Your task to perform on an android device: Search for razer blackwidow on costco, select the first entry, and add it to the cart. Image 0: 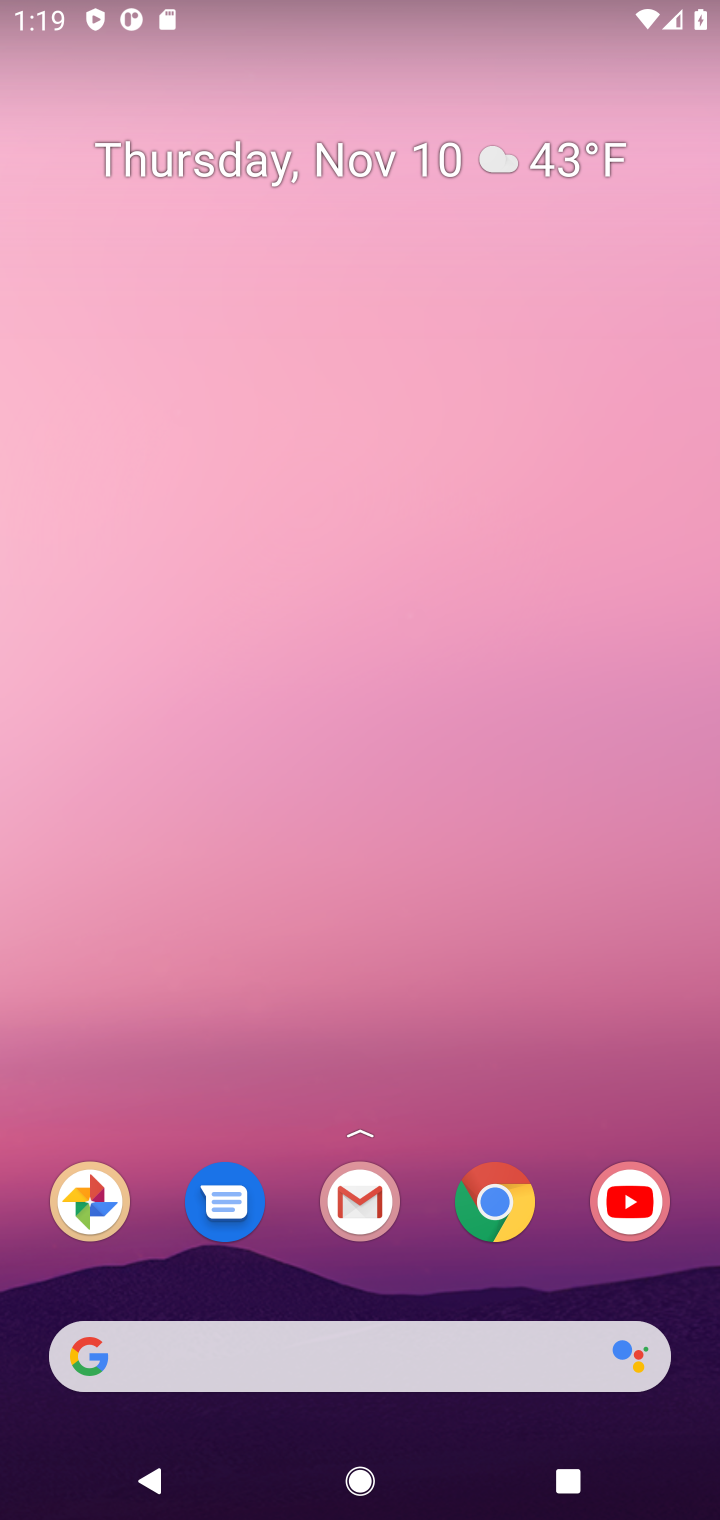
Step 0: click (478, 1205)
Your task to perform on an android device: Search for razer blackwidow on costco, select the first entry, and add it to the cart. Image 1: 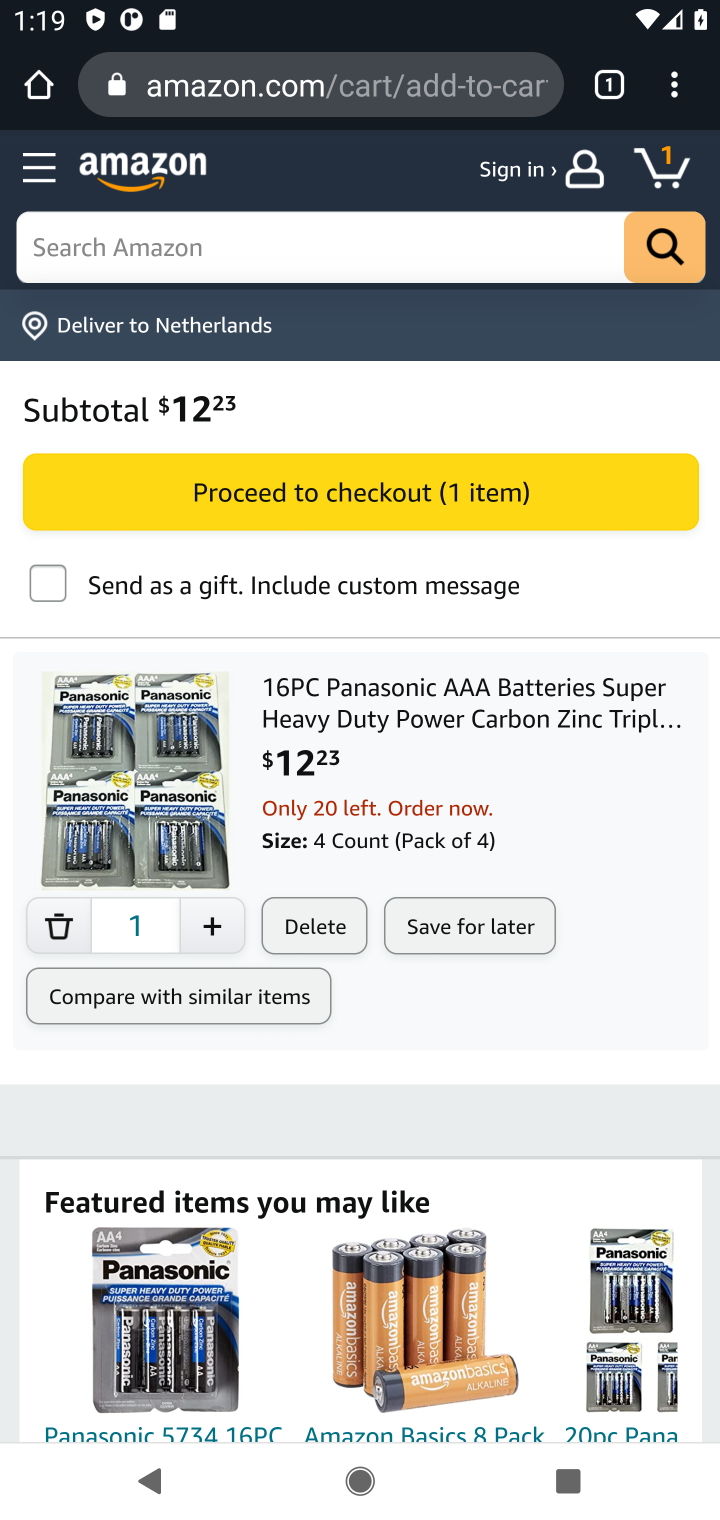
Step 1: click (335, 76)
Your task to perform on an android device: Search for razer blackwidow on costco, select the first entry, and add it to the cart. Image 2: 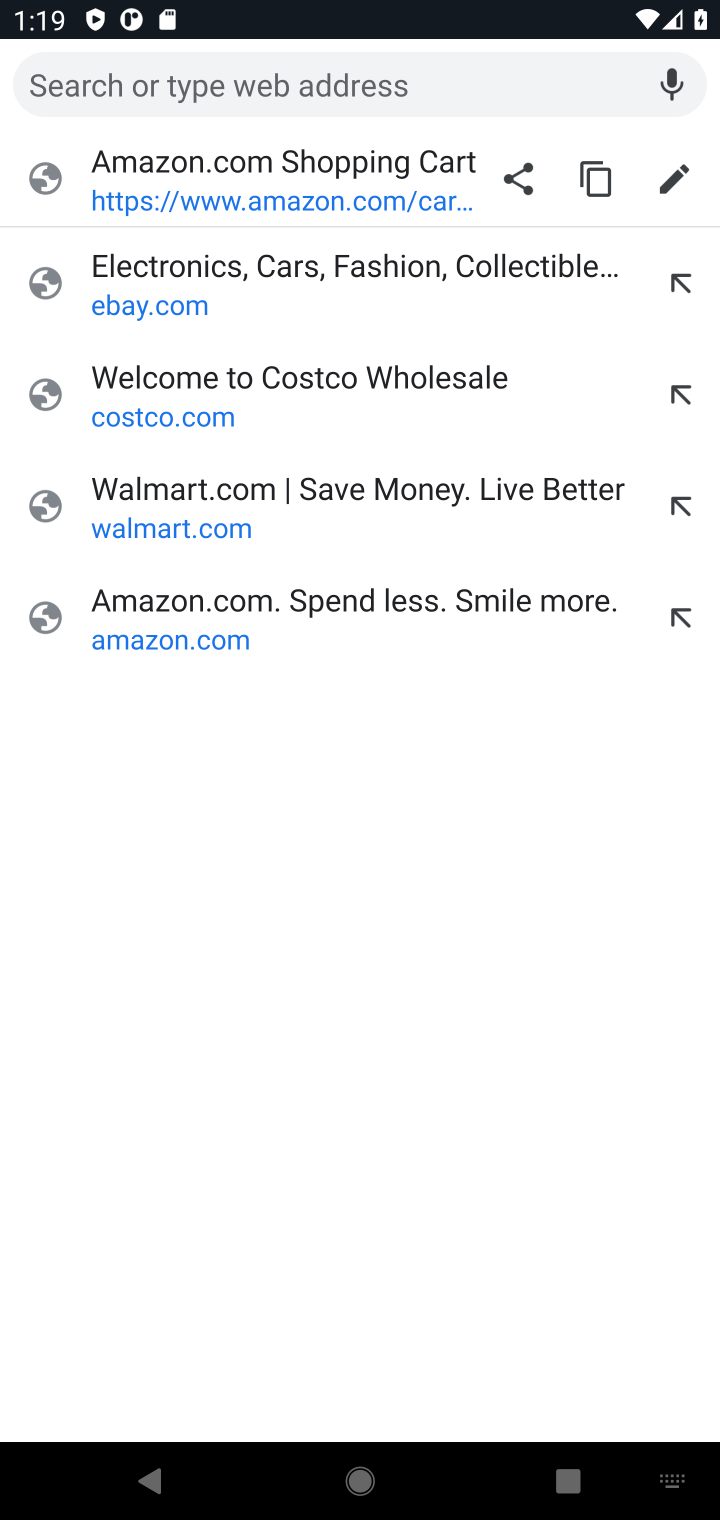
Step 2: type " razer blackwidow on costco"
Your task to perform on an android device: Search for razer blackwidow on costco, select the first entry, and add it to the cart. Image 3: 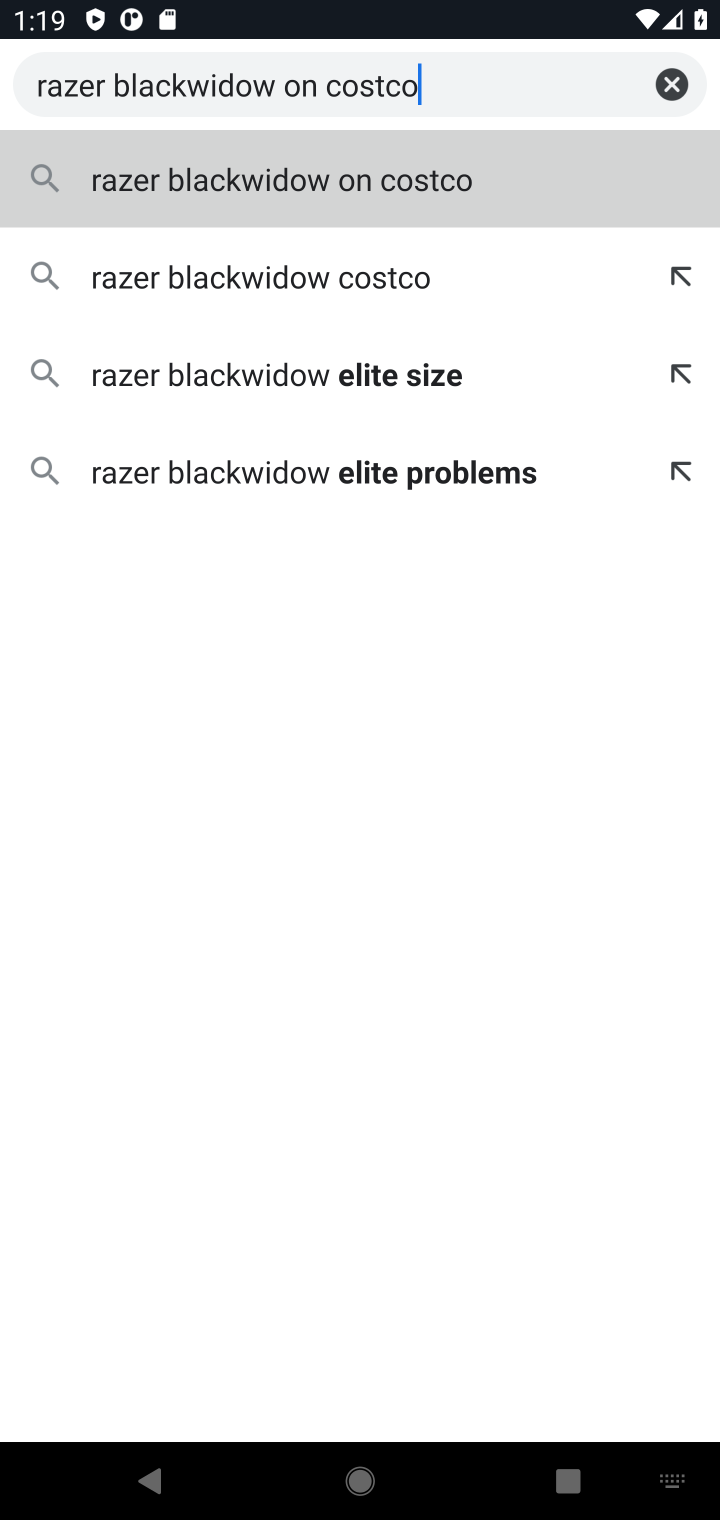
Step 3: click (427, 167)
Your task to perform on an android device: Search for razer blackwidow on costco, select the first entry, and add it to the cart. Image 4: 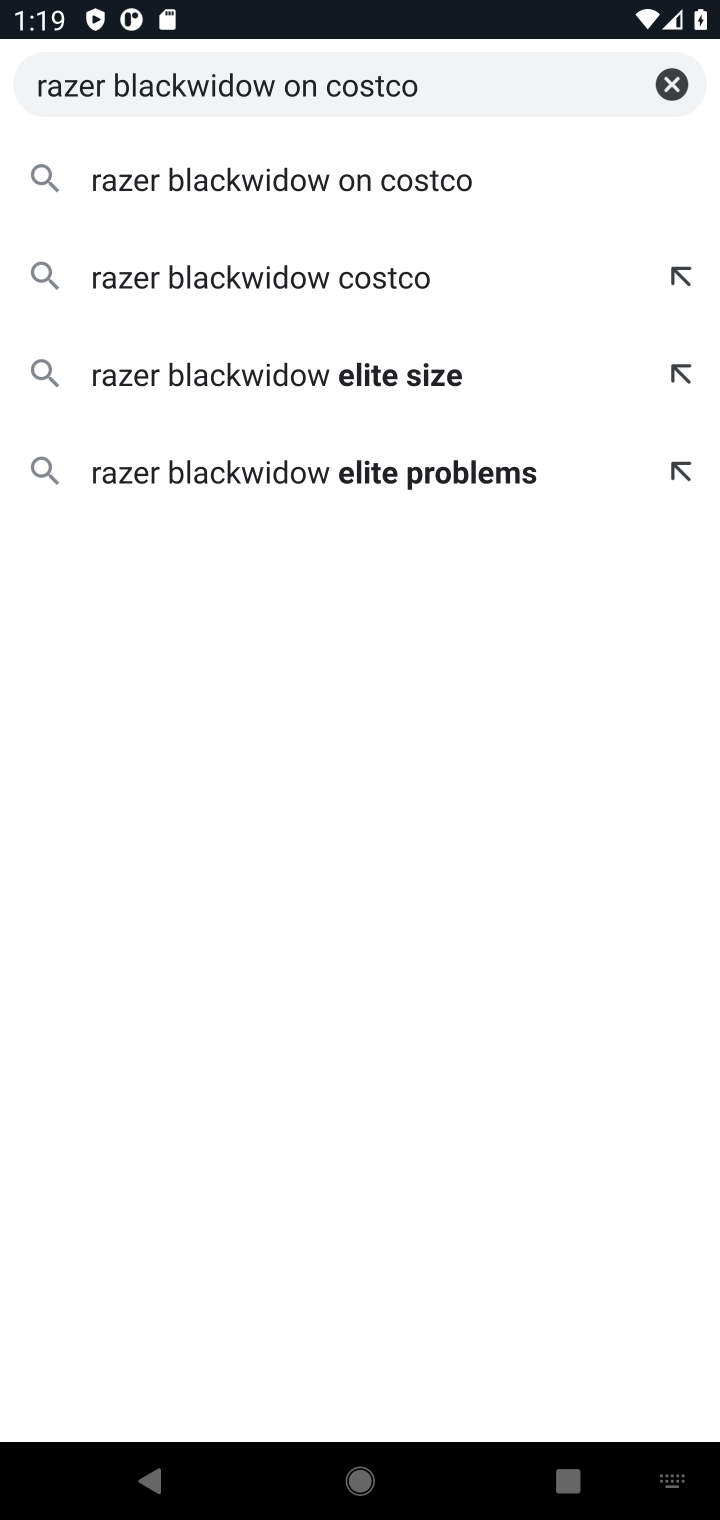
Step 4: click (429, 175)
Your task to perform on an android device: Search for razer blackwidow on costco, select the first entry, and add it to the cart. Image 5: 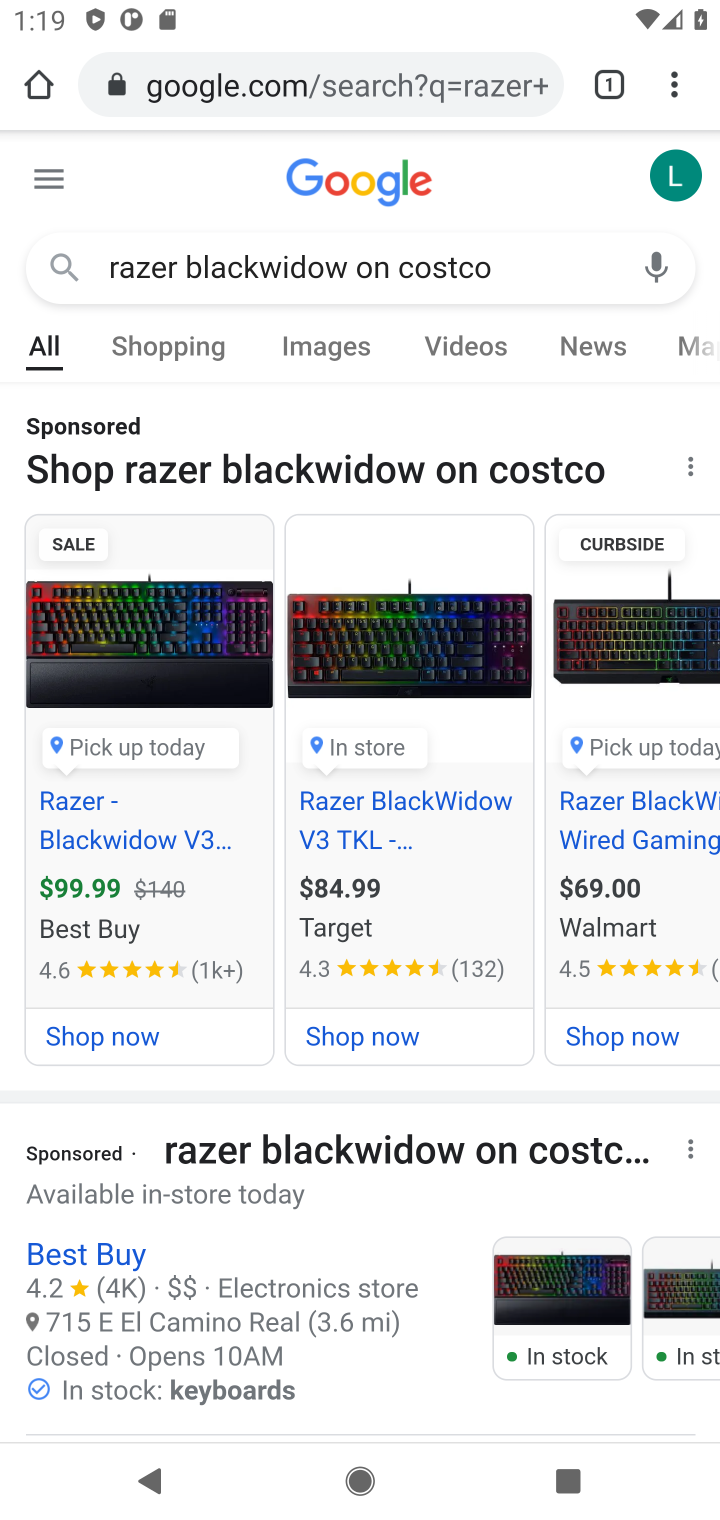
Step 5: drag from (608, 660) to (102, 685)
Your task to perform on an android device: Search for razer blackwidow on costco, select the first entry, and add it to the cart. Image 6: 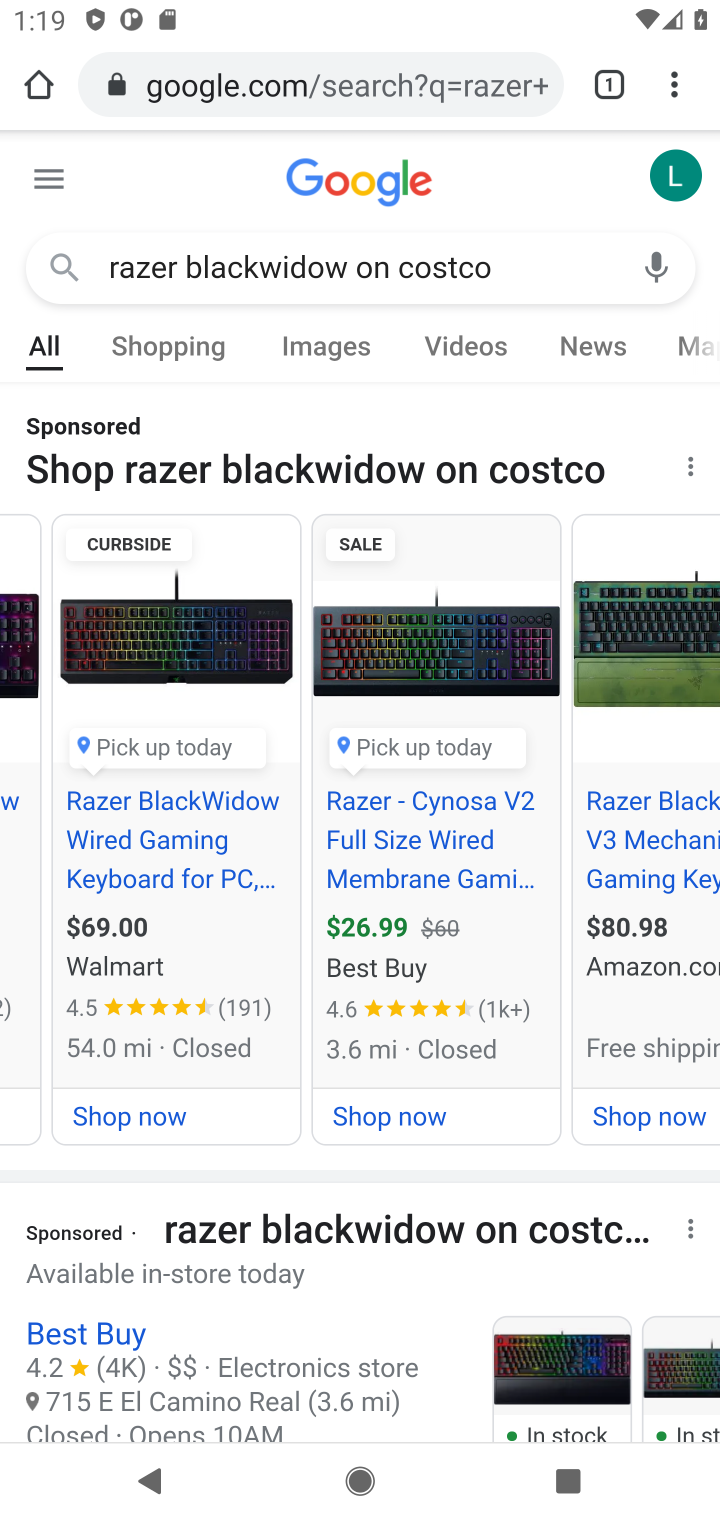
Step 6: drag from (614, 625) to (131, 651)
Your task to perform on an android device: Search for razer blackwidow on costco, select the first entry, and add it to the cart. Image 7: 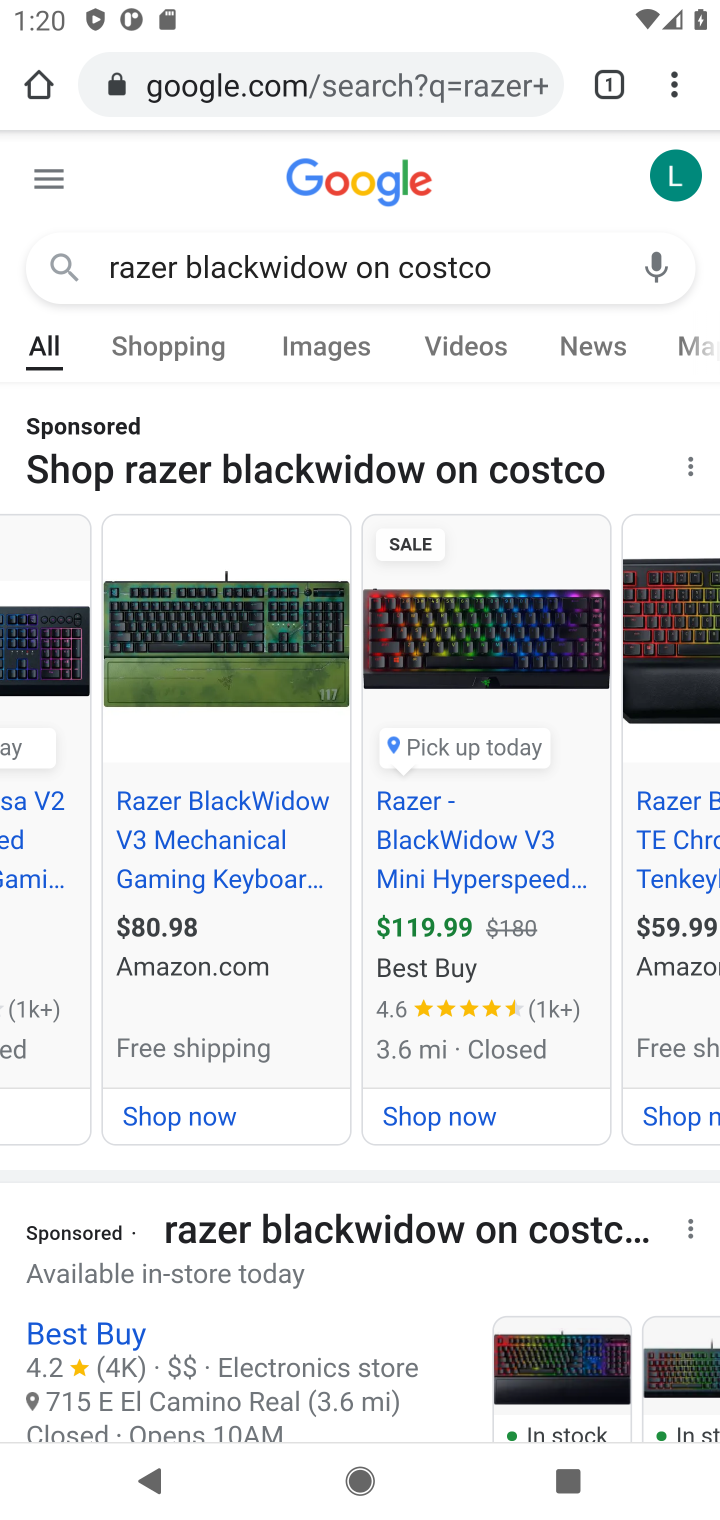
Step 7: click (39, 85)
Your task to perform on an android device: Search for razer blackwidow on costco, select the first entry, and add it to the cart. Image 8: 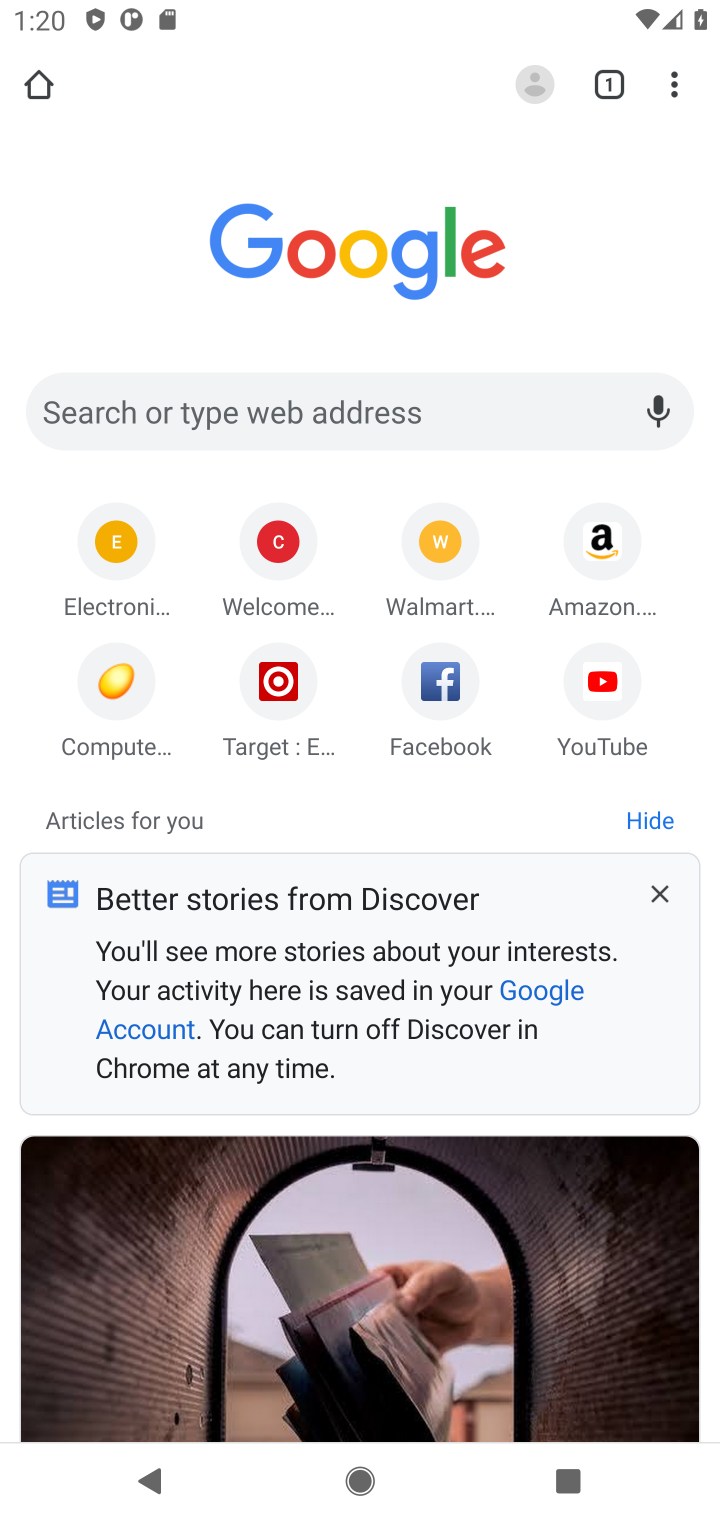
Step 8: click (368, 428)
Your task to perform on an android device: Search for razer blackwidow on costco, select the first entry, and add it to the cart. Image 9: 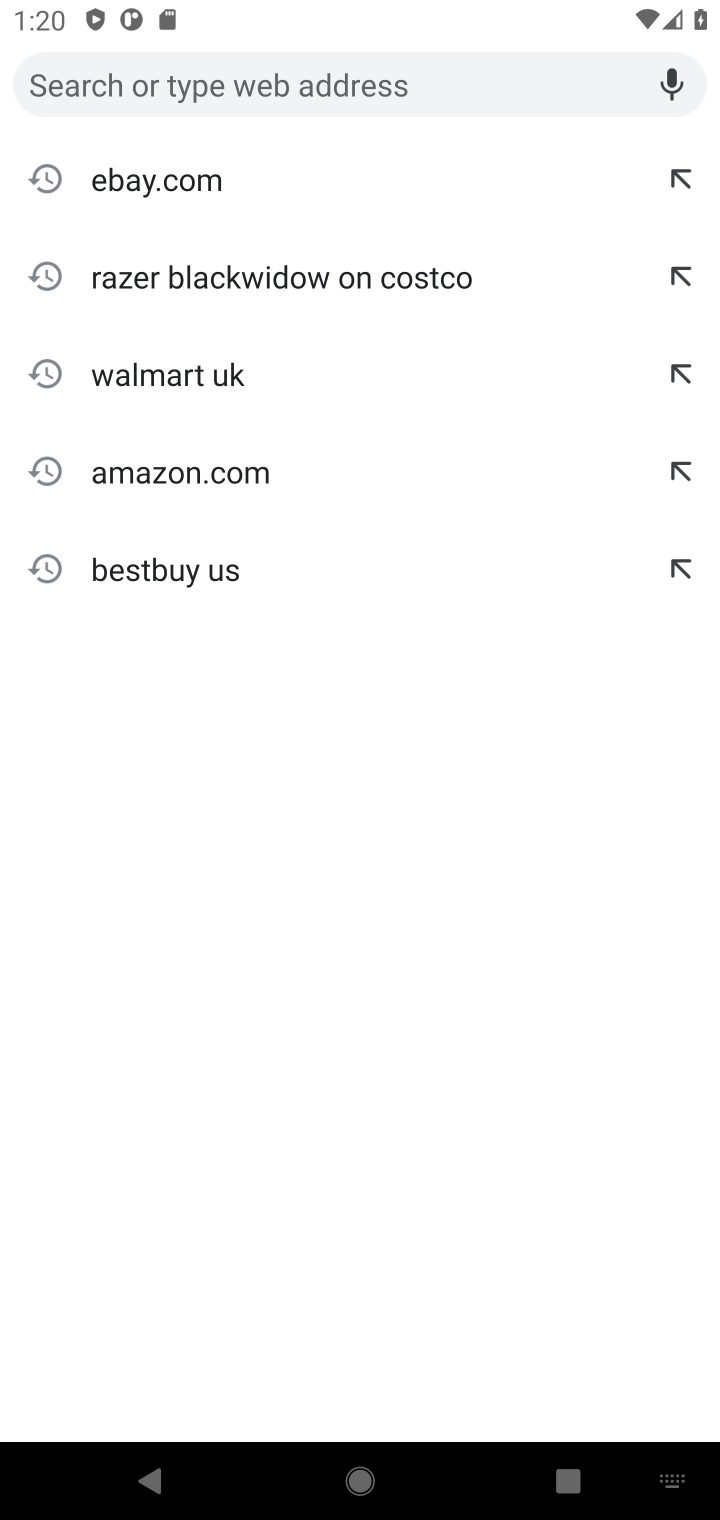
Step 9: type "costco"
Your task to perform on an android device: Search for razer blackwidow on costco, select the first entry, and add it to the cart. Image 10: 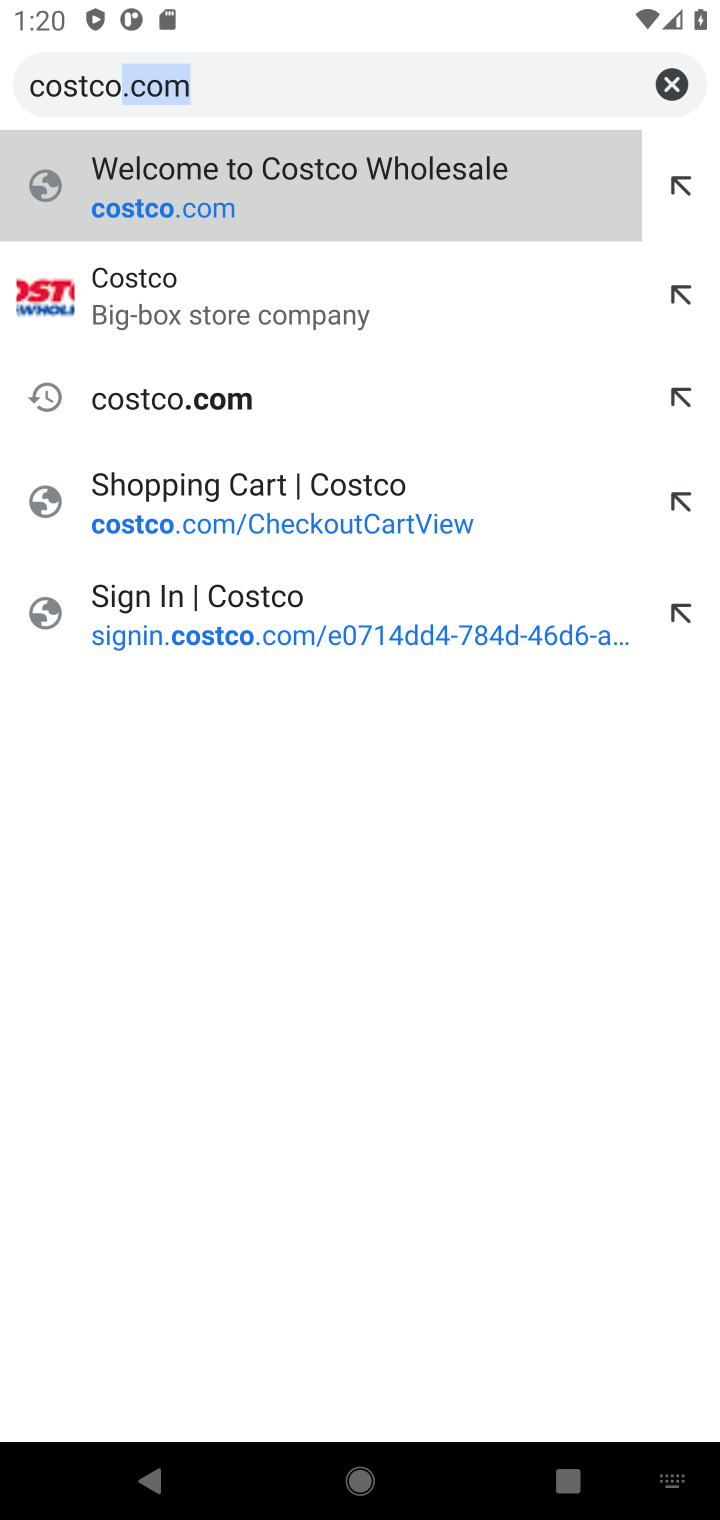
Step 10: click (287, 87)
Your task to perform on an android device: Search for razer blackwidow on costco, select the first entry, and add it to the cart. Image 11: 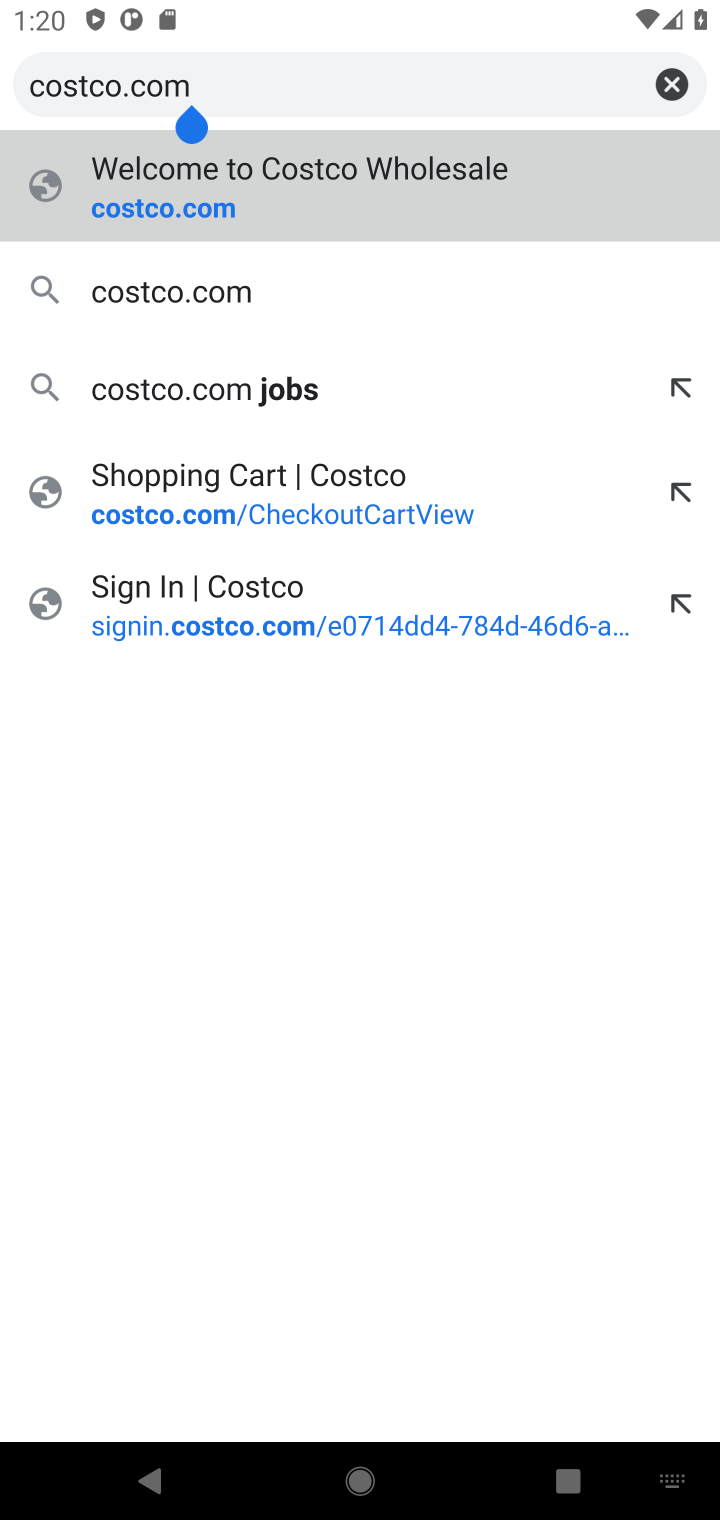
Step 11: click (233, 279)
Your task to perform on an android device: Search for razer blackwidow on costco, select the first entry, and add it to the cart. Image 12: 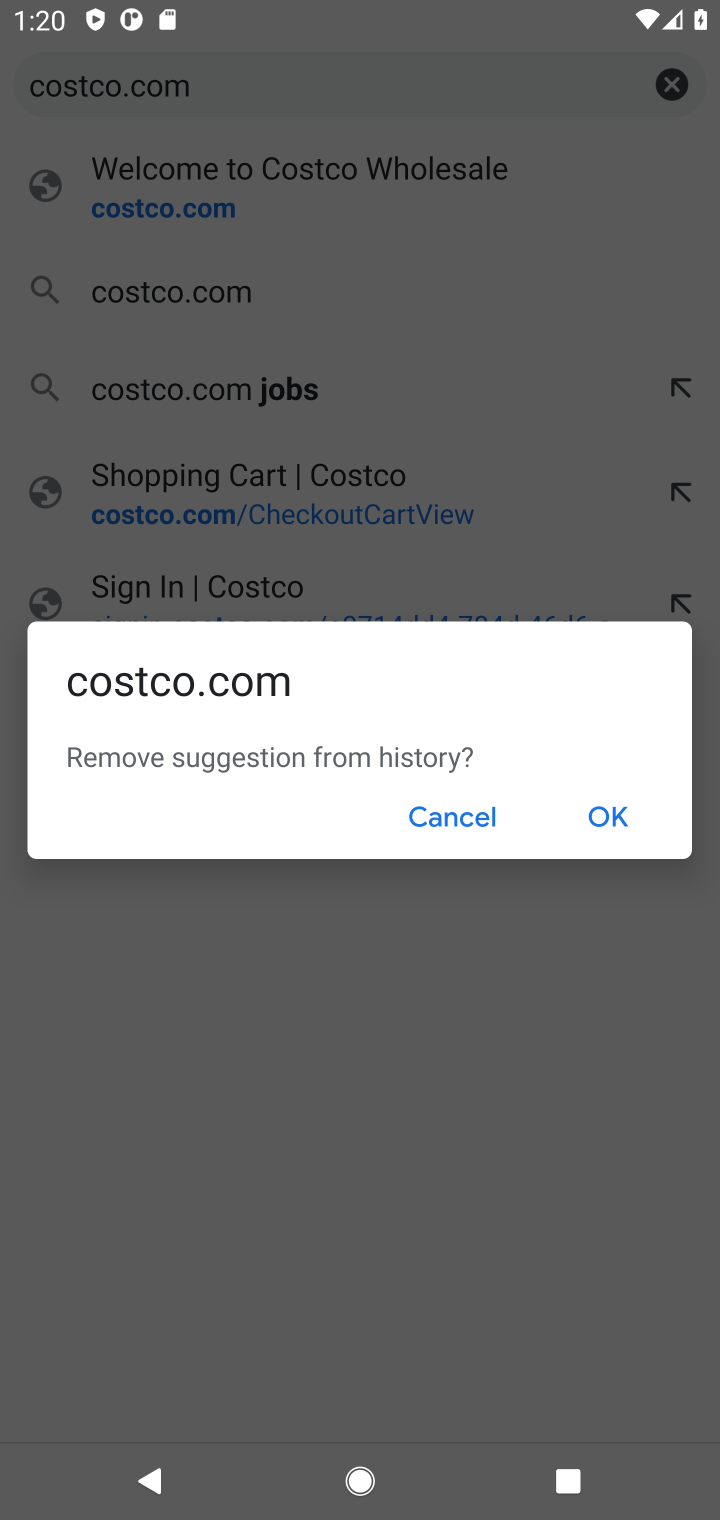
Step 12: click (235, 278)
Your task to perform on an android device: Search for razer blackwidow on costco, select the first entry, and add it to the cart. Image 13: 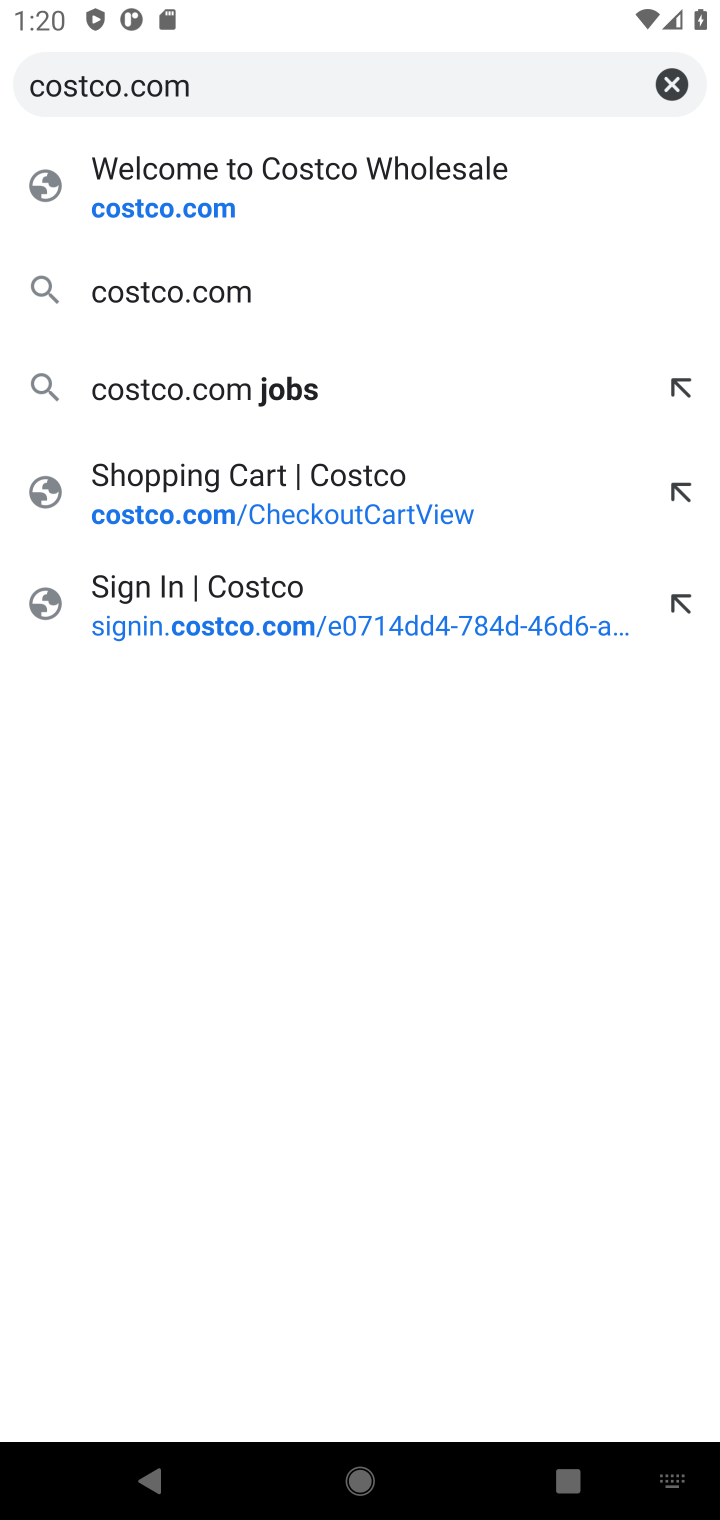
Step 13: click (597, 800)
Your task to perform on an android device: Search for razer blackwidow on costco, select the first entry, and add it to the cart. Image 14: 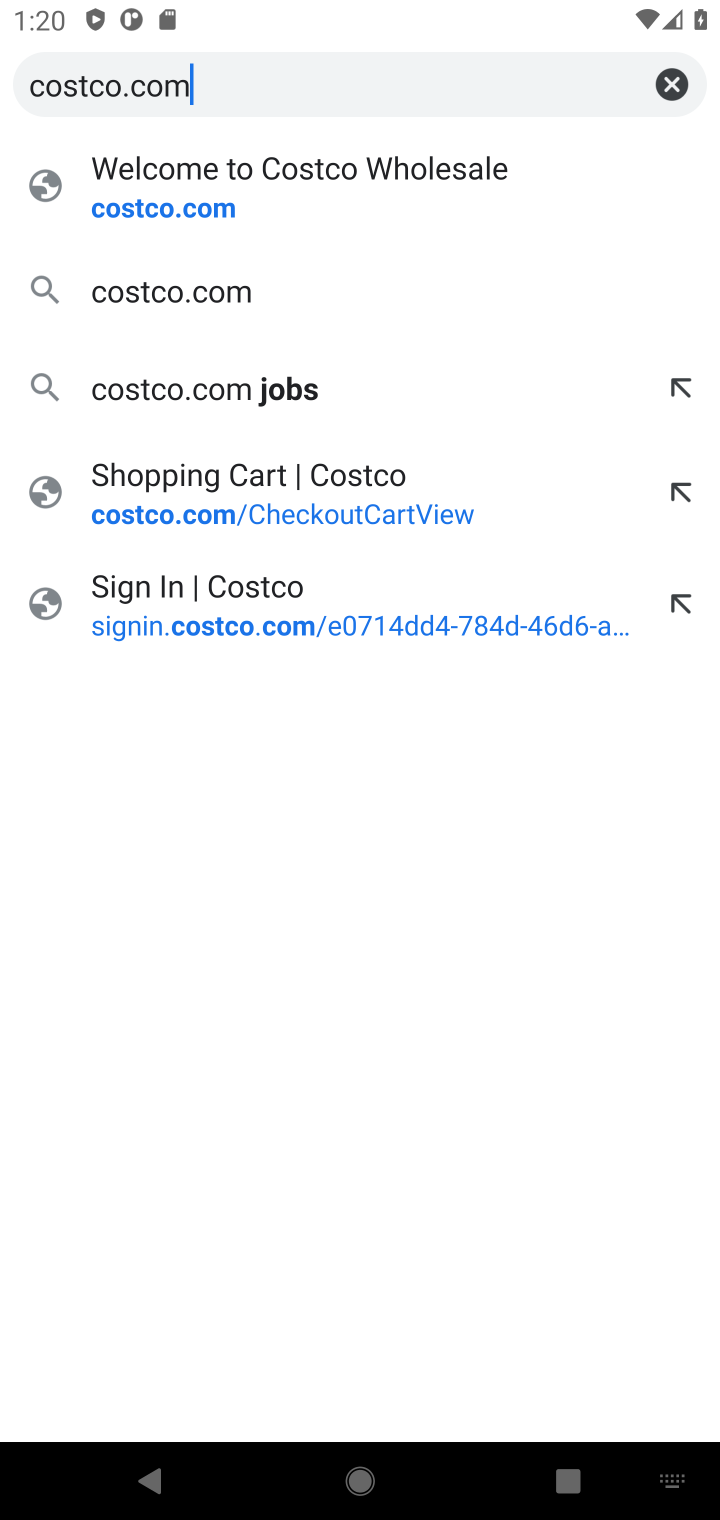
Step 14: click (221, 286)
Your task to perform on an android device: Search for razer blackwidow on costco, select the first entry, and add it to the cart. Image 15: 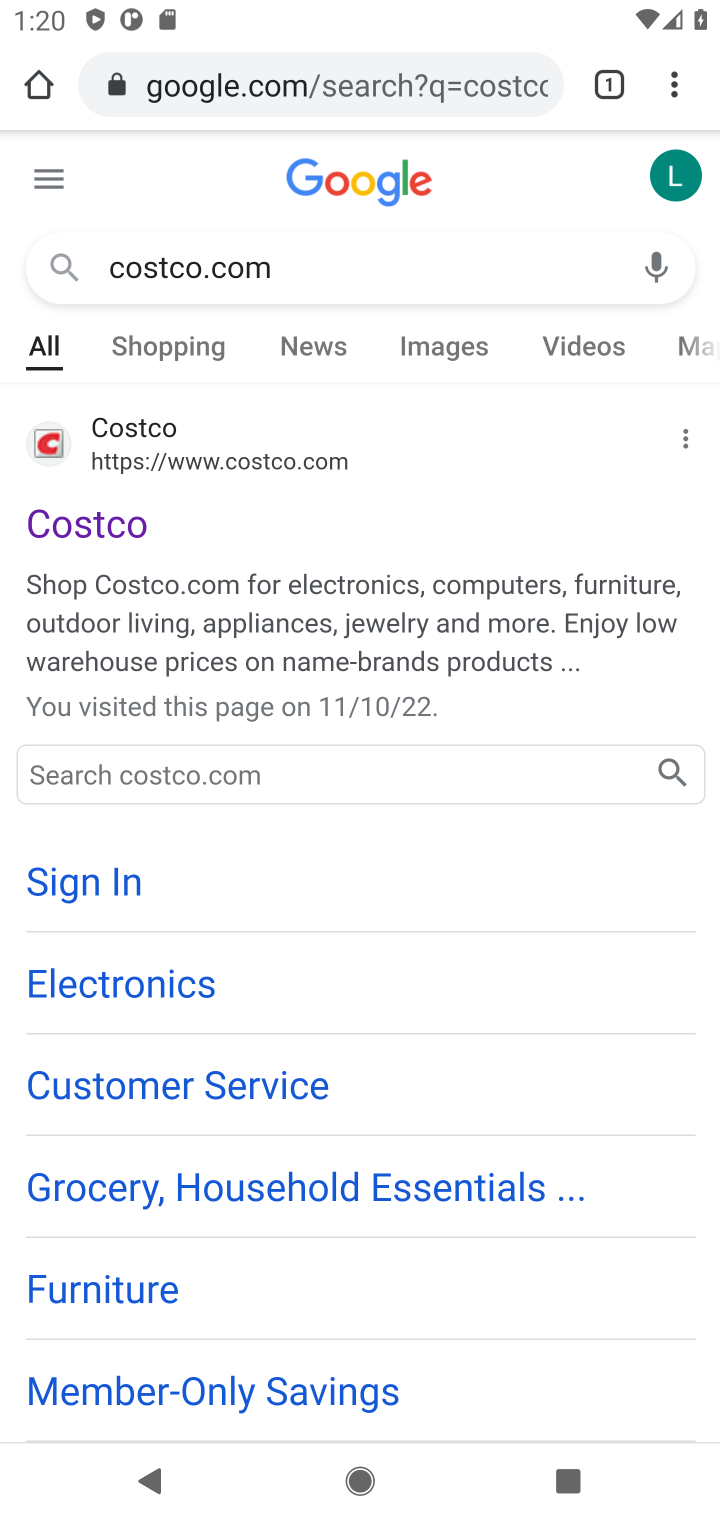
Step 15: click (199, 458)
Your task to perform on an android device: Search for razer blackwidow on costco, select the first entry, and add it to the cart. Image 16: 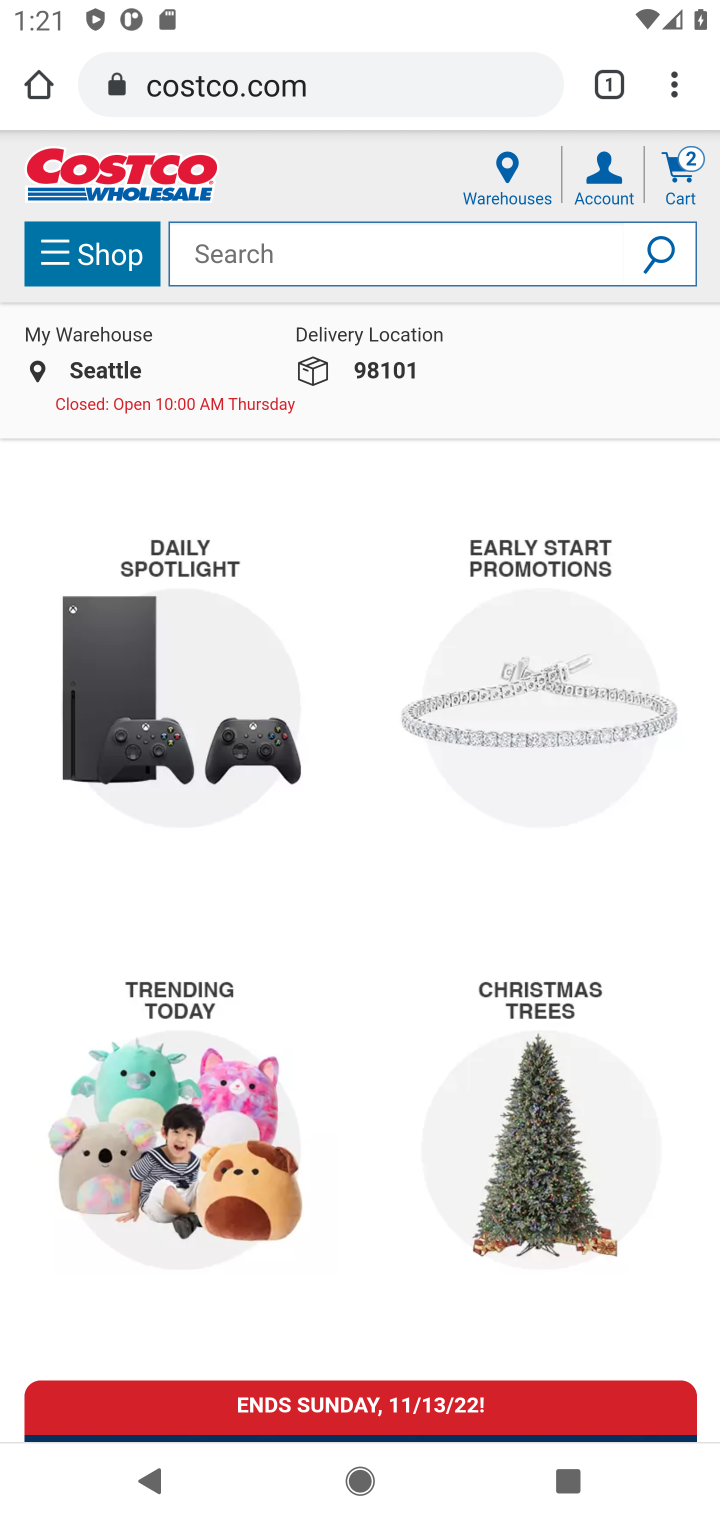
Step 16: click (504, 232)
Your task to perform on an android device: Search for razer blackwidow on costco, select the first entry, and add it to the cart. Image 17: 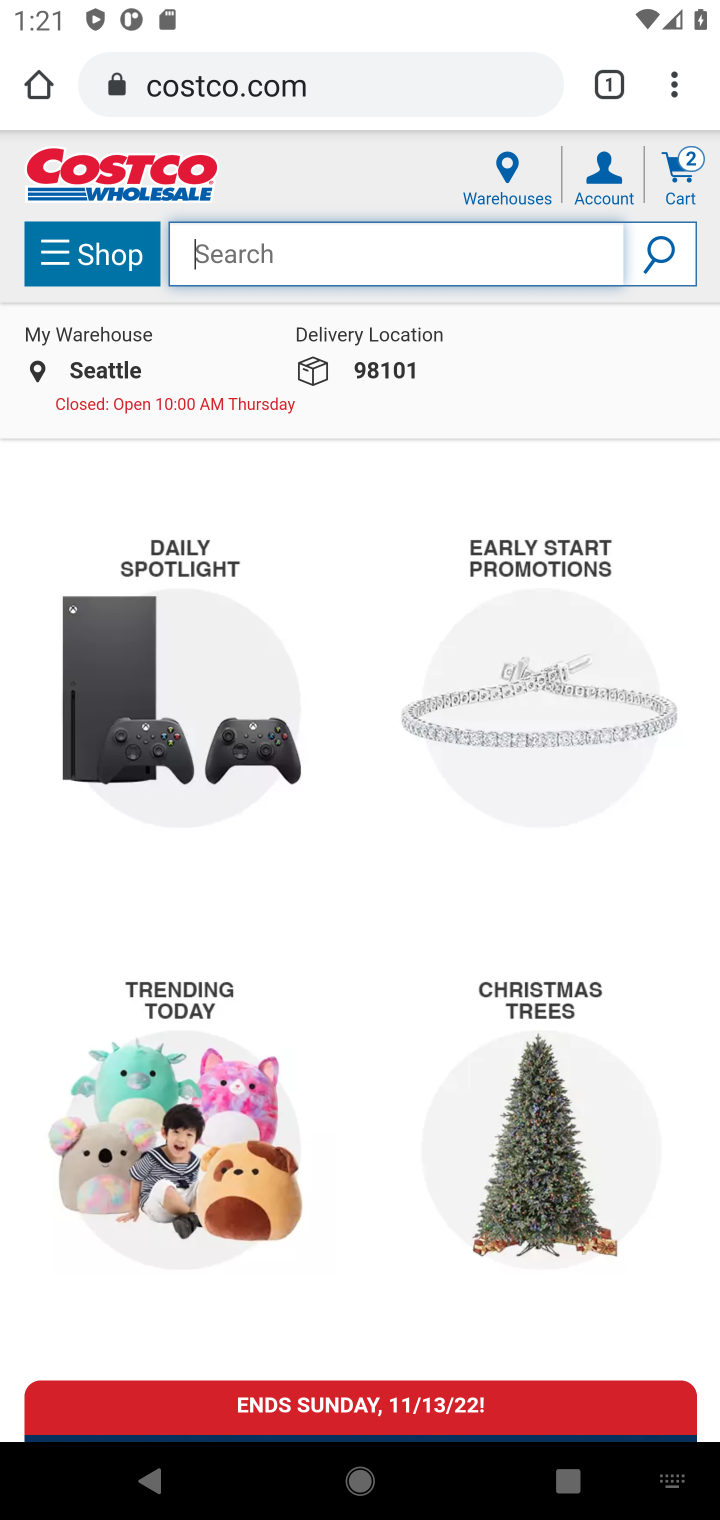
Step 17: type "razer blackwidow"
Your task to perform on an android device: Search for razer blackwidow on costco, select the first entry, and add it to the cart. Image 18: 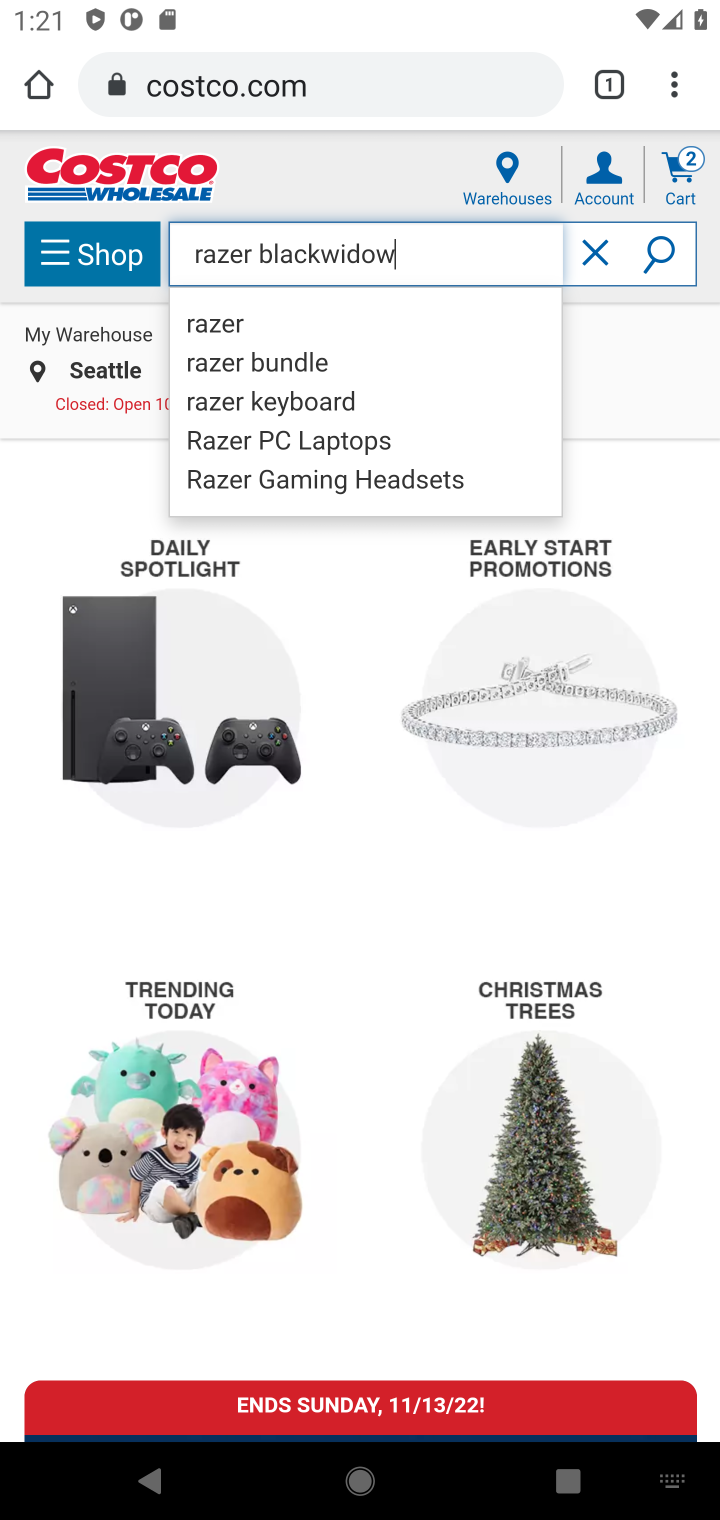
Step 18: click (627, 326)
Your task to perform on an android device: Search for razer blackwidow on costco, select the first entry, and add it to the cart. Image 19: 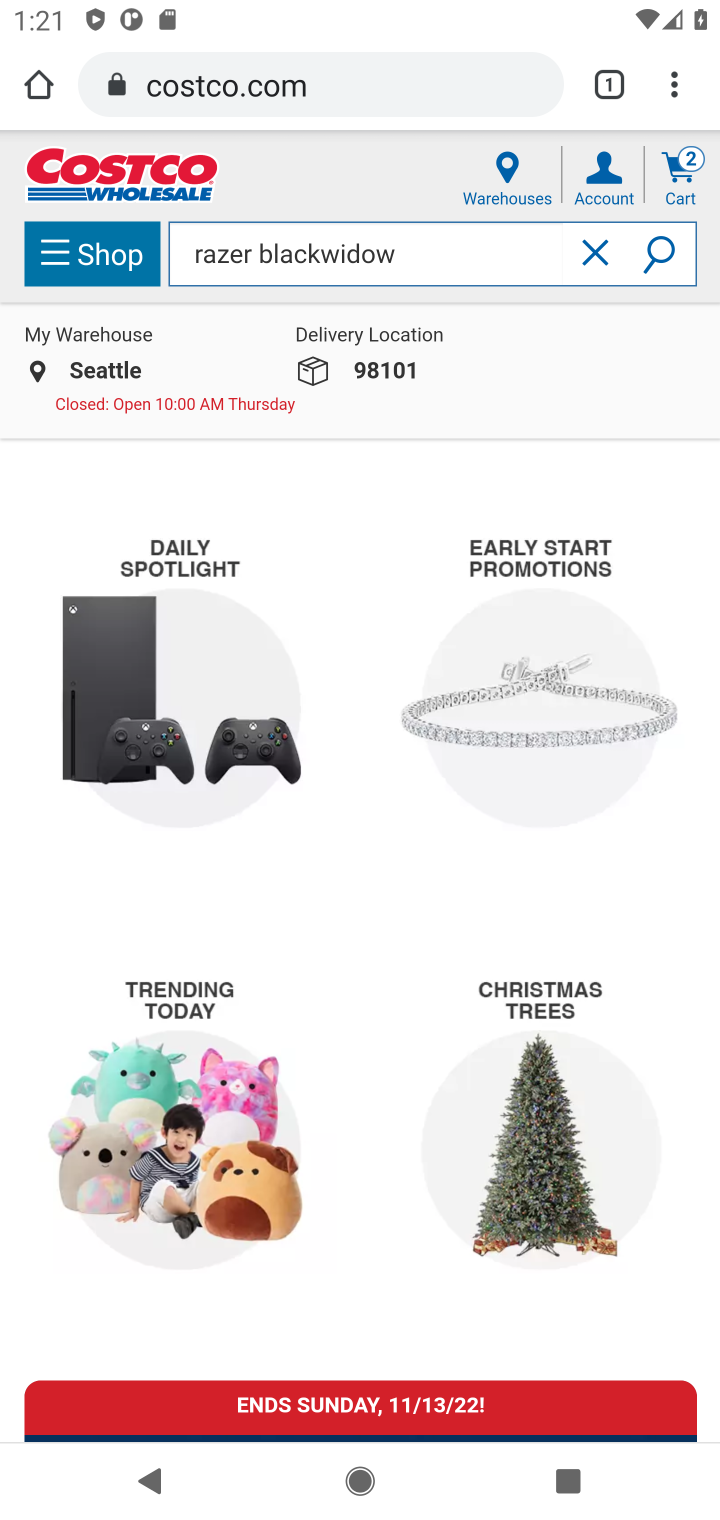
Step 19: click (590, 350)
Your task to perform on an android device: Search for razer blackwidow on costco, select the first entry, and add it to the cart. Image 20: 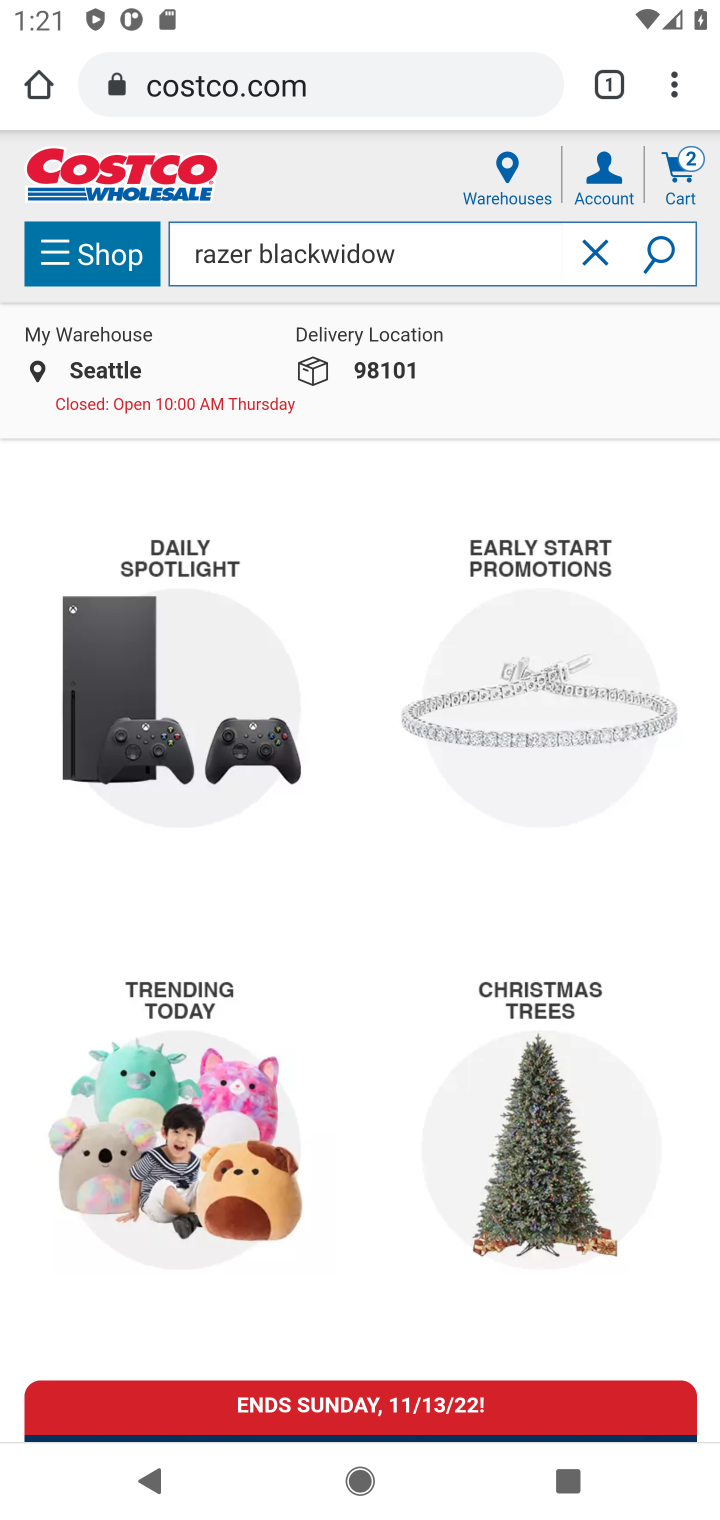
Step 20: task complete